Your task to perform on an android device: Search for the ikea sjalv lamp Image 0: 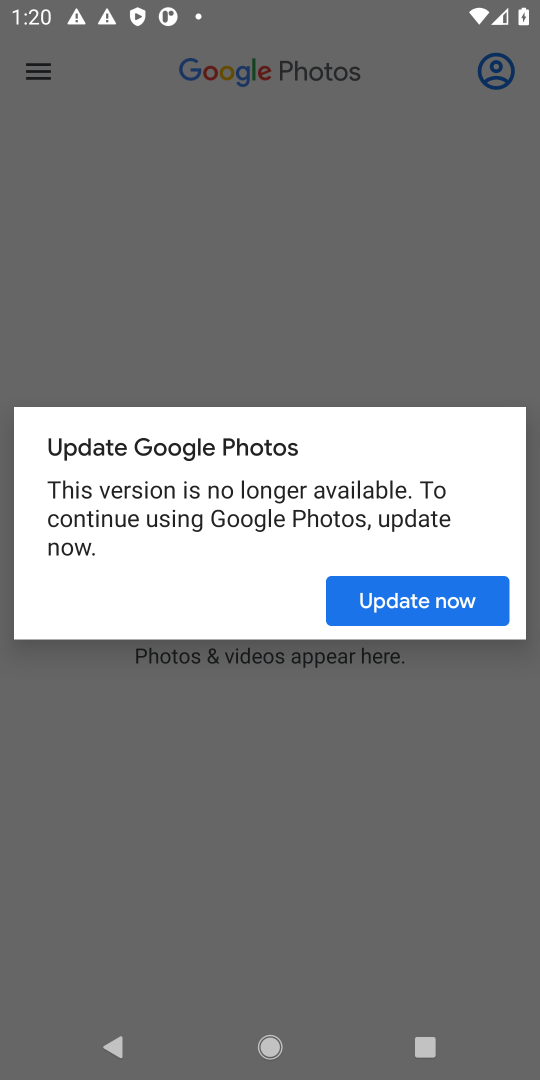
Step 0: press home button
Your task to perform on an android device: Search for the ikea sjalv lamp Image 1: 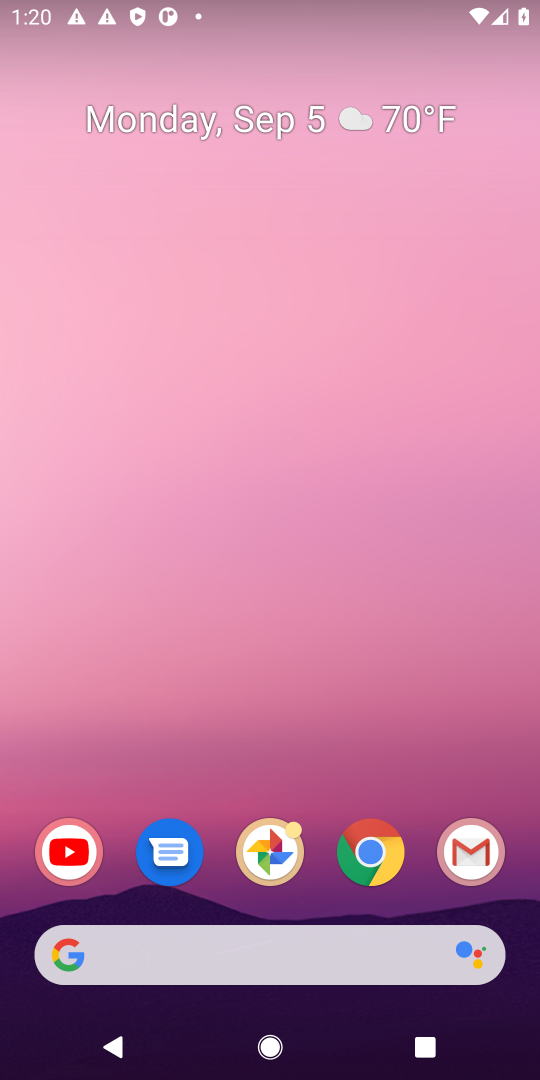
Step 1: click (376, 852)
Your task to perform on an android device: Search for the ikea sjalv lamp Image 2: 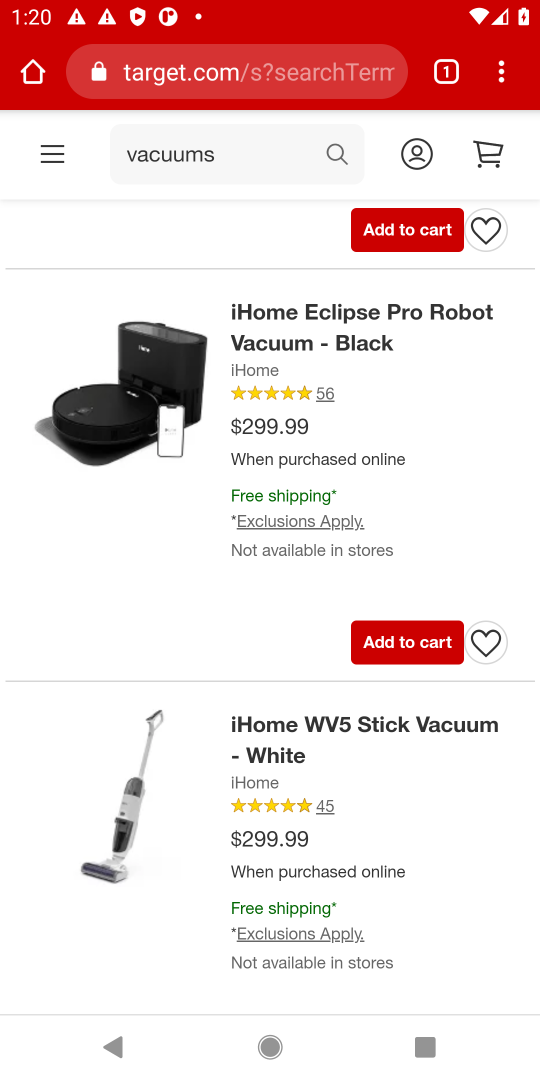
Step 2: click (307, 47)
Your task to perform on an android device: Search for the ikea sjalv lamp Image 3: 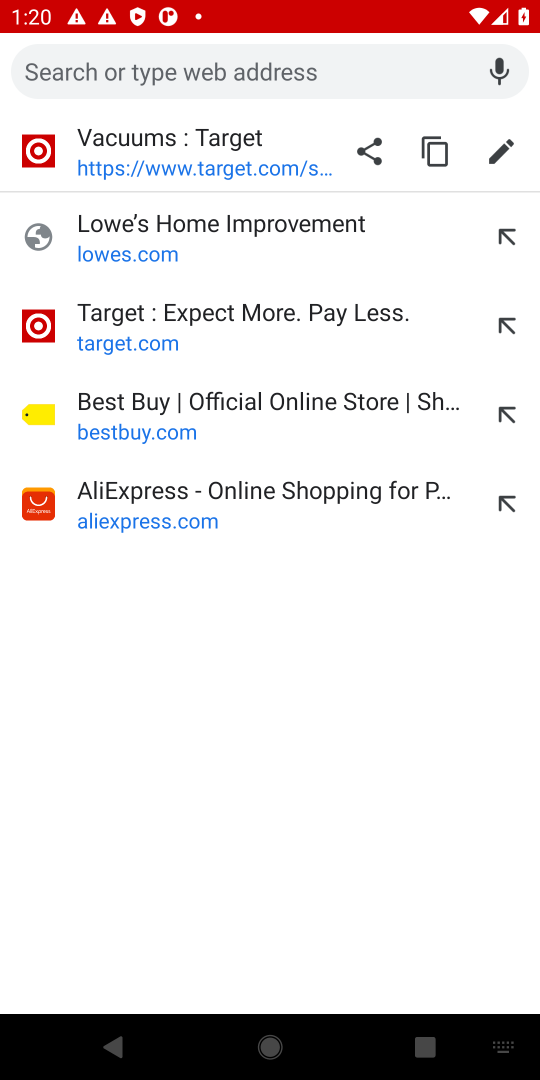
Step 3: type "ikea sjalv lamp"
Your task to perform on an android device: Search for the ikea sjalv lamp Image 4: 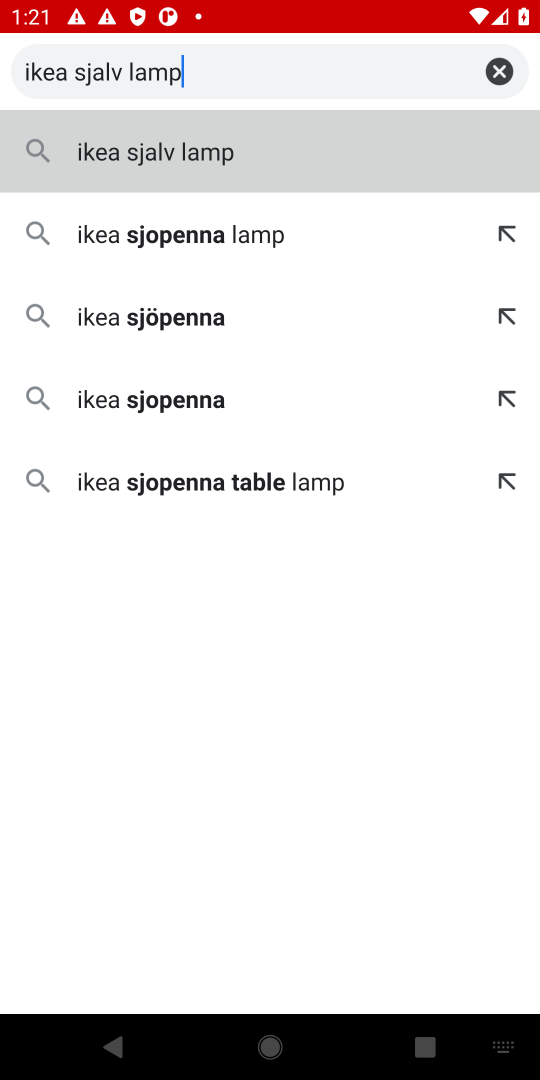
Step 4: click (147, 150)
Your task to perform on an android device: Search for the ikea sjalv lamp Image 5: 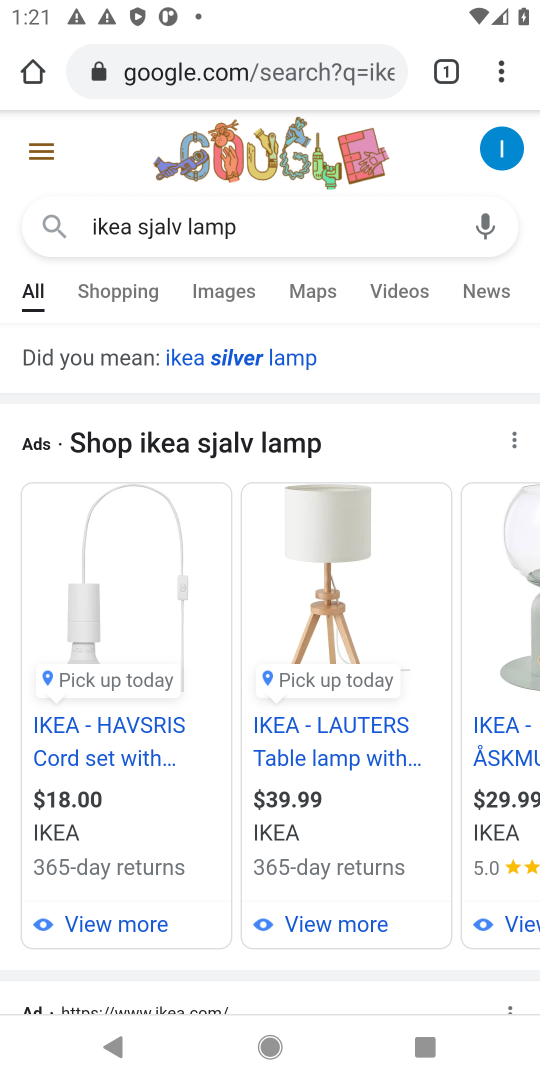
Step 5: task complete